Your task to perform on an android device: turn pop-ups on in chrome Image 0: 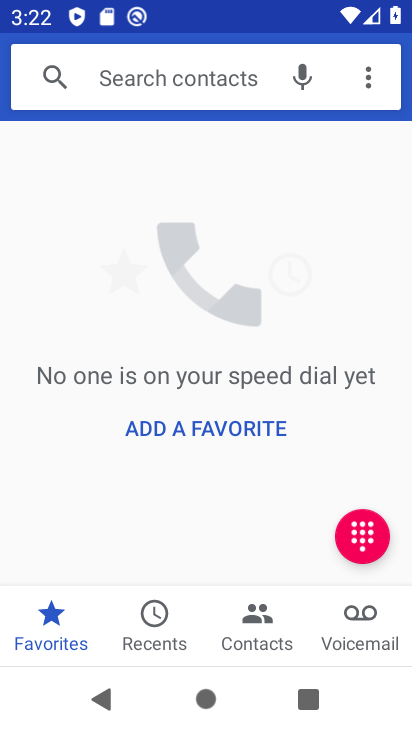
Step 0: press back button
Your task to perform on an android device: turn pop-ups on in chrome Image 1: 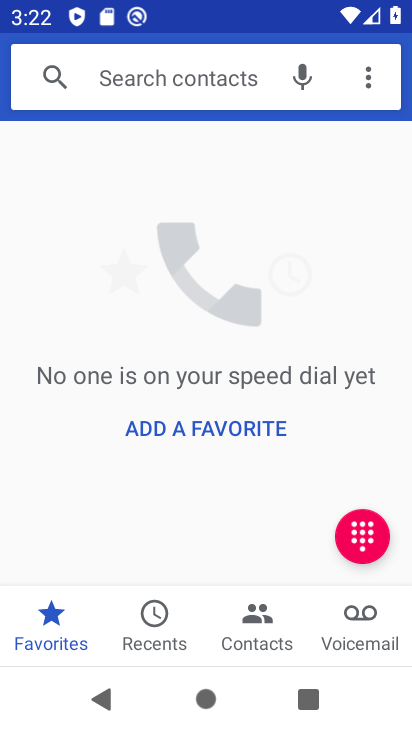
Step 1: press back button
Your task to perform on an android device: turn pop-ups on in chrome Image 2: 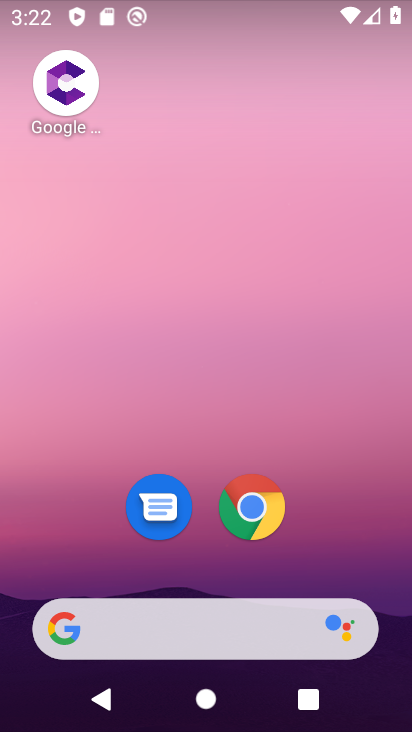
Step 2: drag from (353, 550) to (208, 142)
Your task to perform on an android device: turn pop-ups on in chrome Image 3: 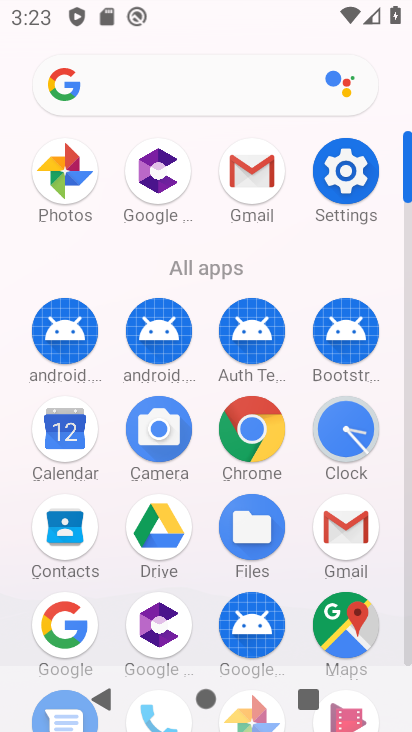
Step 3: click (256, 432)
Your task to perform on an android device: turn pop-ups on in chrome Image 4: 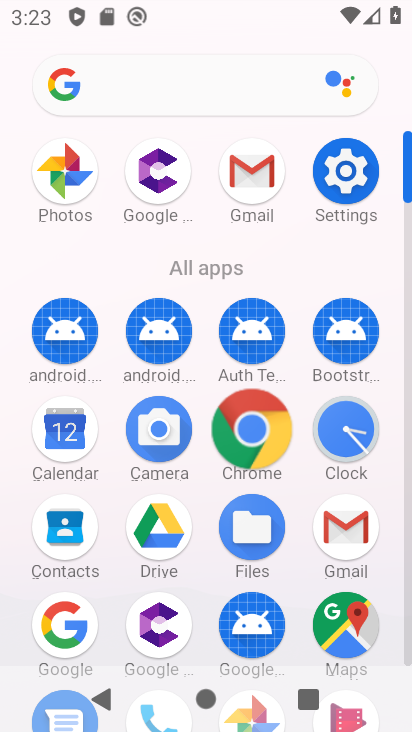
Step 4: click (250, 428)
Your task to perform on an android device: turn pop-ups on in chrome Image 5: 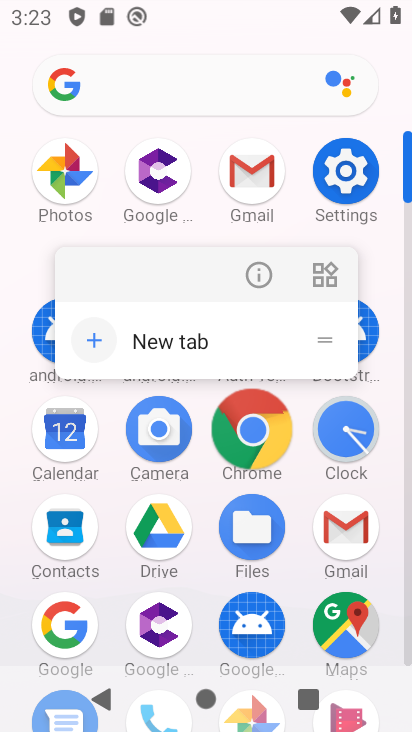
Step 5: click (254, 423)
Your task to perform on an android device: turn pop-ups on in chrome Image 6: 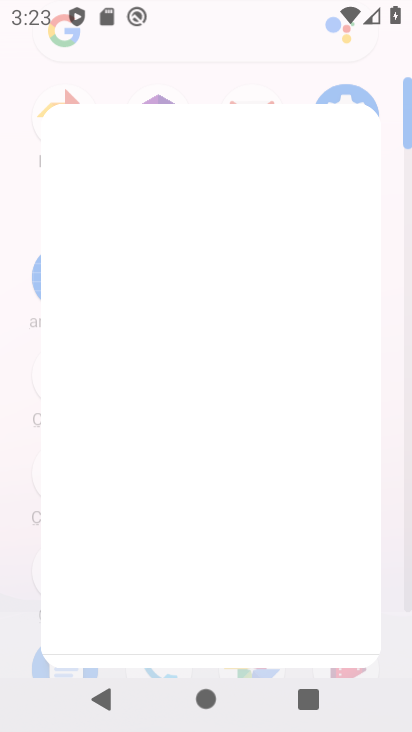
Step 6: click (252, 422)
Your task to perform on an android device: turn pop-ups on in chrome Image 7: 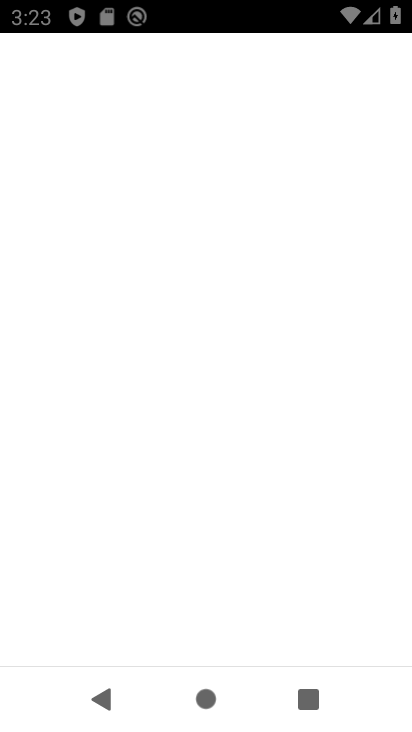
Step 7: click (253, 420)
Your task to perform on an android device: turn pop-ups on in chrome Image 8: 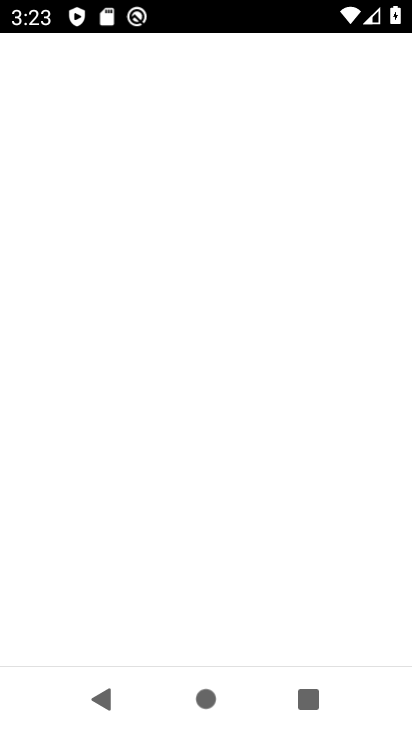
Step 8: click (253, 418)
Your task to perform on an android device: turn pop-ups on in chrome Image 9: 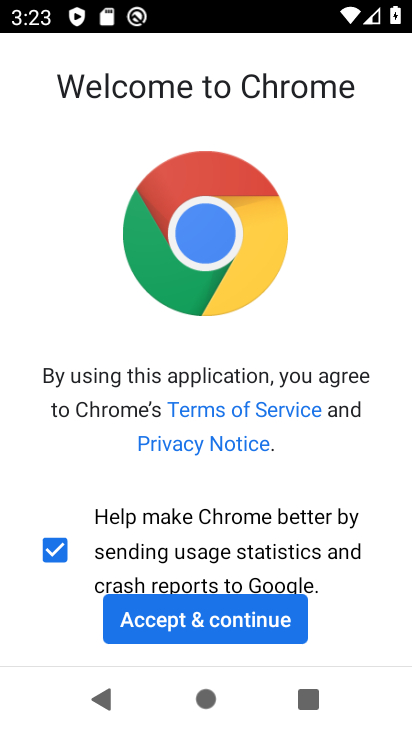
Step 9: click (227, 623)
Your task to perform on an android device: turn pop-ups on in chrome Image 10: 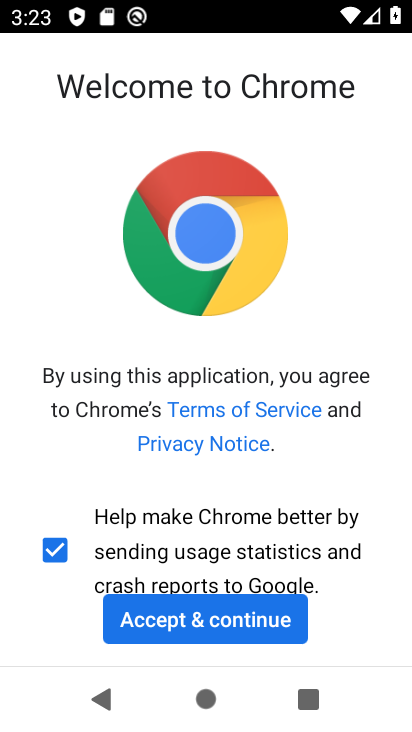
Step 10: click (227, 621)
Your task to perform on an android device: turn pop-ups on in chrome Image 11: 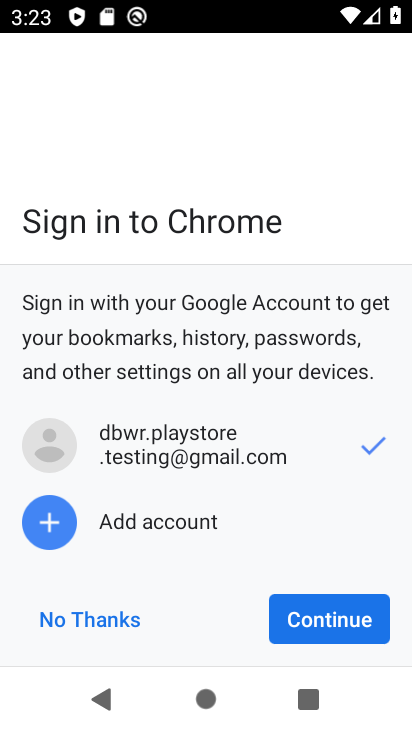
Step 11: click (227, 620)
Your task to perform on an android device: turn pop-ups on in chrome Image 12: 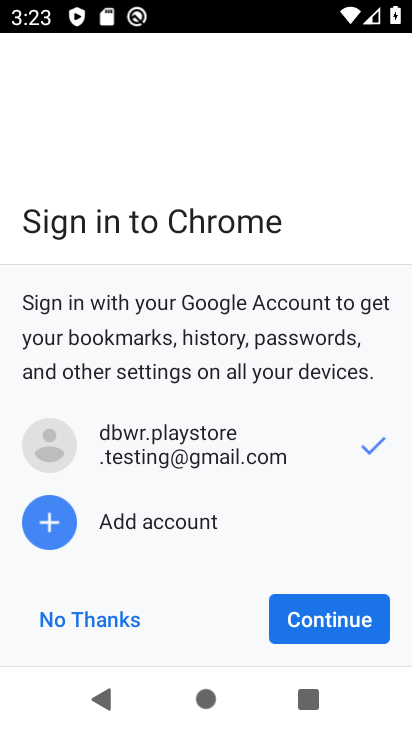
Step 12: click (349, 620)
Your task to perform on an android device: turn pop-ups on in chrome Image 13: 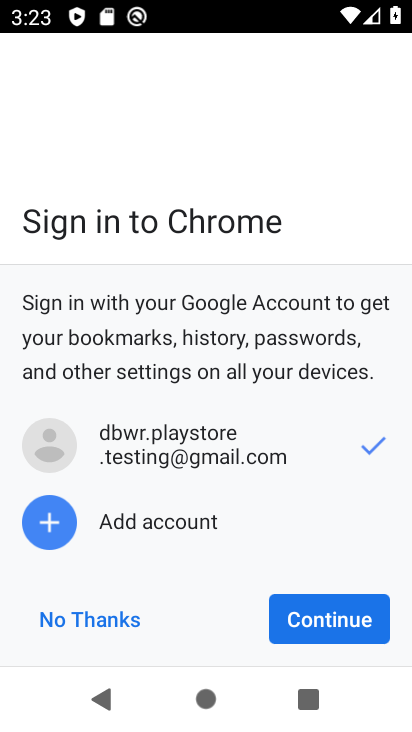
Step 13: click (351, 618)
Your task to perform on an android device: turn pop-ups on in chrome Image 14: 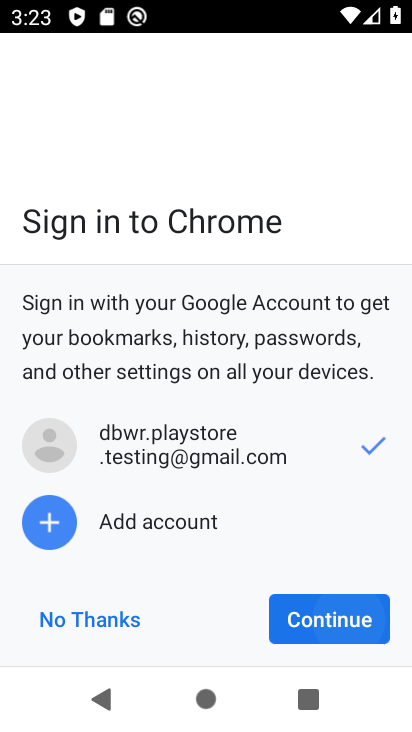
Step 14: click (351, 618)
Your task to perform on an android device: turn pop-ups on in chrome Image 15: 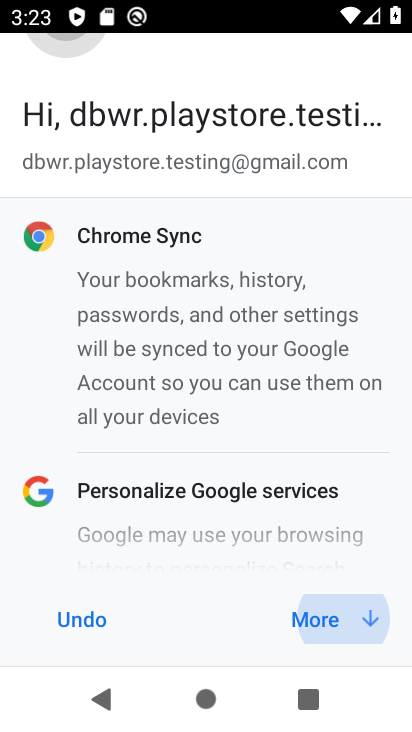
Step 15: click (348, 616)
Your task to perform on an android device: turn pop-ups on in chrome Image 16: 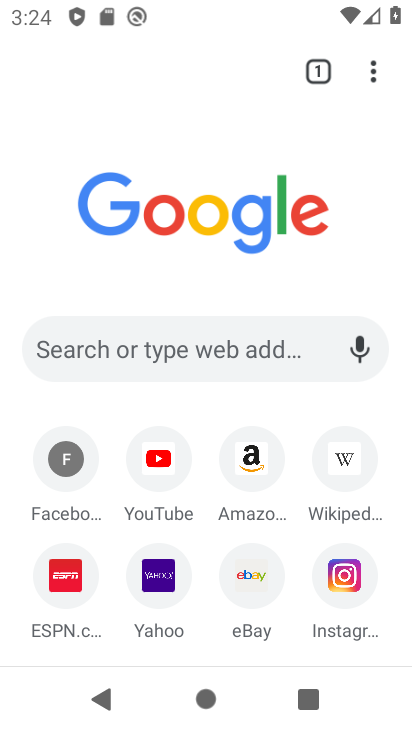
Step 16: drag from (372, 73) to (132, 504)
Your task to perform on an android device: turn pop-ups on in chrome Image 17: 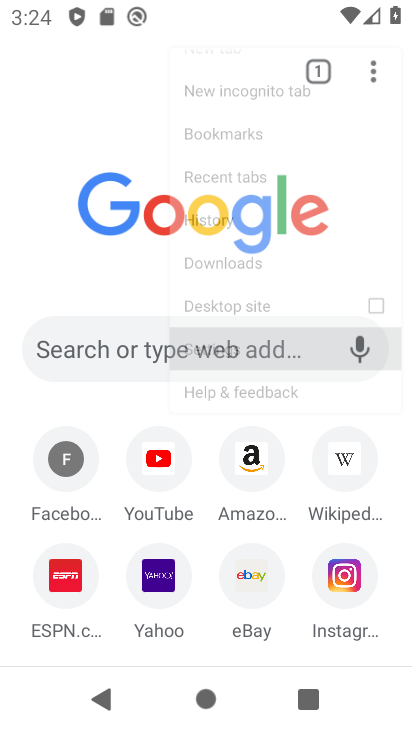
Step 17: click (134, 501)
Your task to perform on an android device: turn pop-ups on in chrome Image 18: 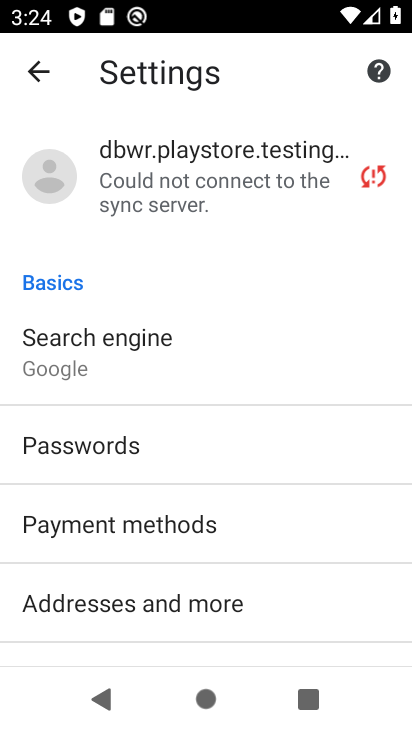
Step 18: drag from (150, 470) to (109, 221)
Your task to perform on an android device: turn pop-ups on in chrome Image 19: 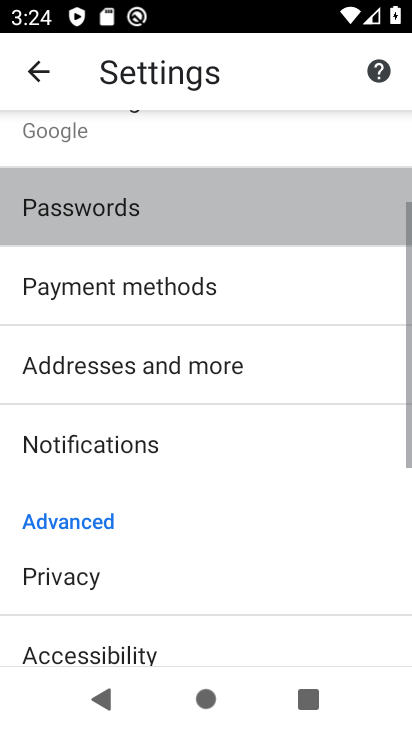
Step 19: drag from (148, 430) to (173, 117)
Your task to perform on an android device: turn pop-ups on in chrome Image 20: 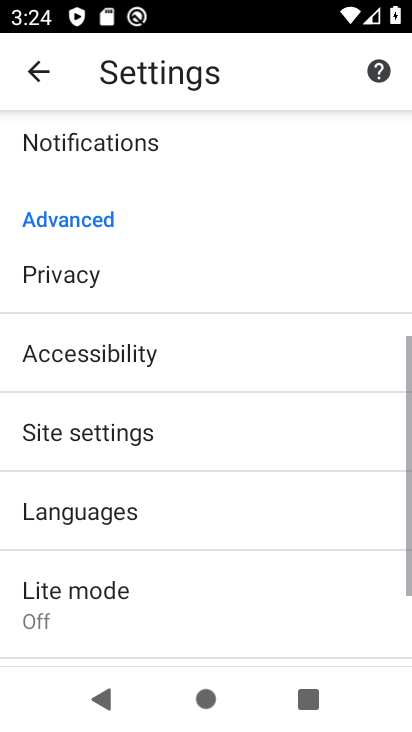
Step 20: drag from (185, 407) to (187, 132)
Your task to perform on an android device: turn pop-ups on in chrome Image 21: 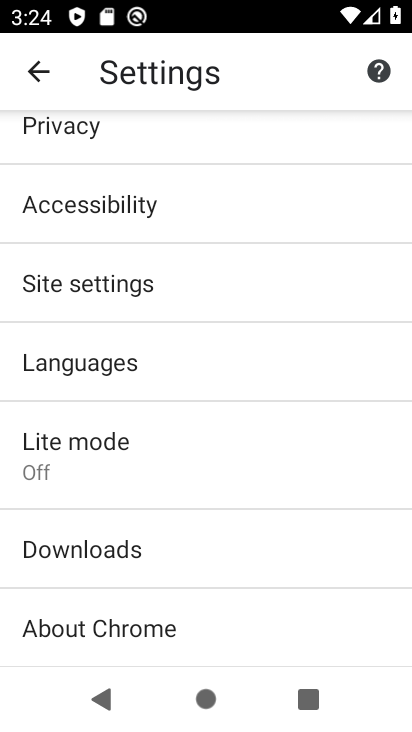
Step 21: click (74, 288)
Your task to perform on an android device: turn pop-ups on in chrome Image 22: 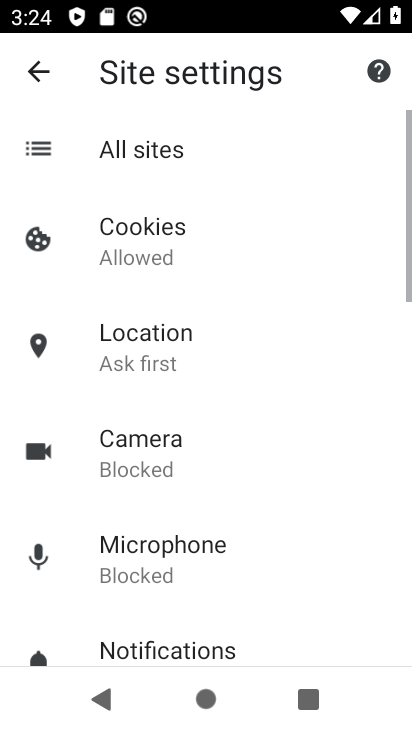
Step 22: drag from (244, 423) to (213, 121)
Your task to perform on an android device: turn pop-ups on in chrome Image 23: 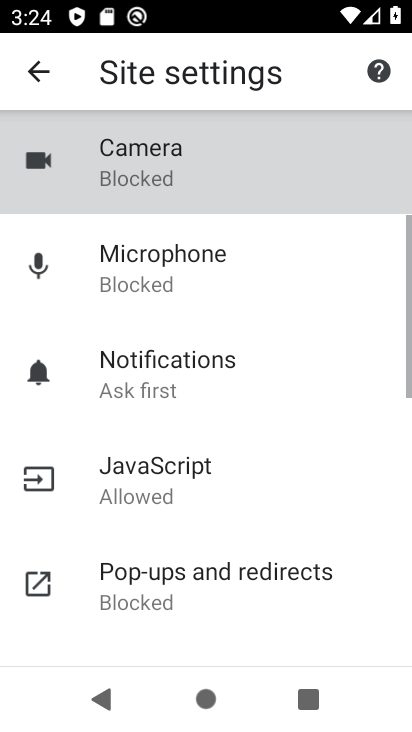
Step 23: drag from (245, 369) to (253, 112)
Your task to perform on an android device: turn pop-ups on in chrome Image 24: 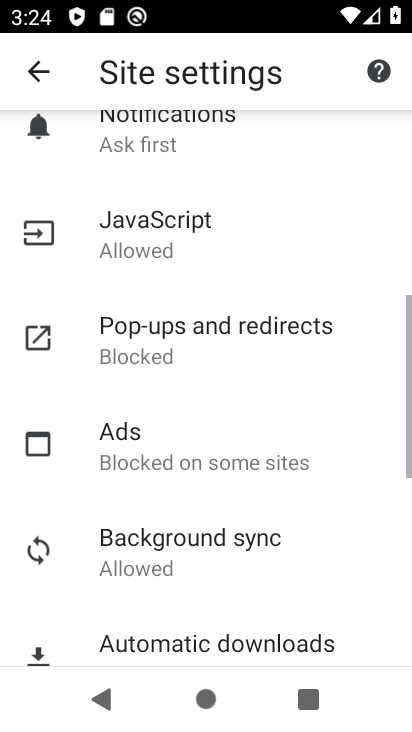
Step 24: drag from (228, 309) to (230, 161)
Your task to perform on an android device: turn pop-ups on in chrome Image 25: 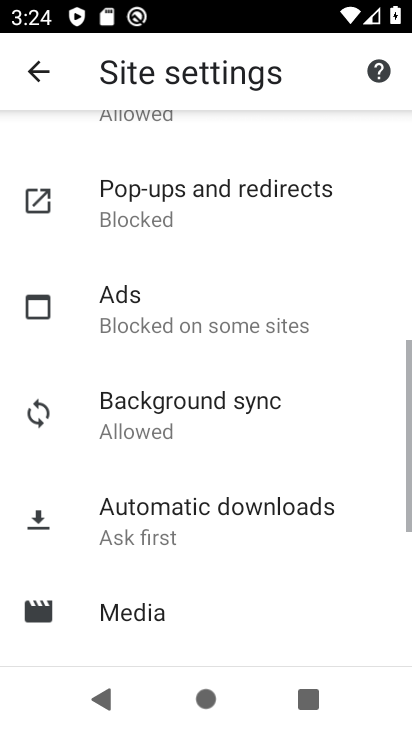
Step 25: drag from (239, 455) to (262, 170)
Your task to perform on an android device: turn pop-ups on in chrome Image 26: 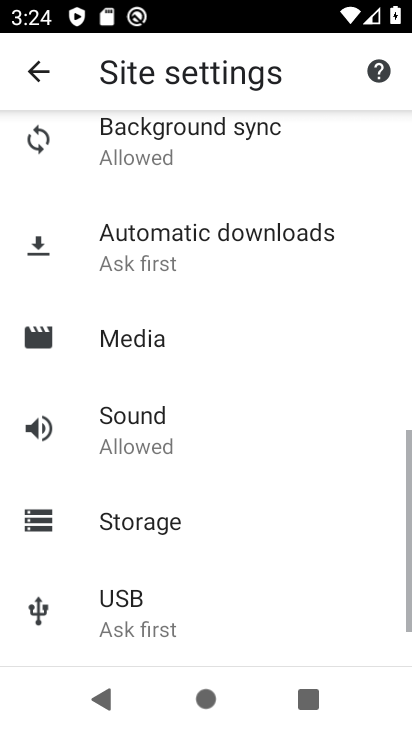
Step 26: drag from (254, 439) to (216, 182)
Your task to perform on an android device: turn pop-ups on in chrome Image 27: 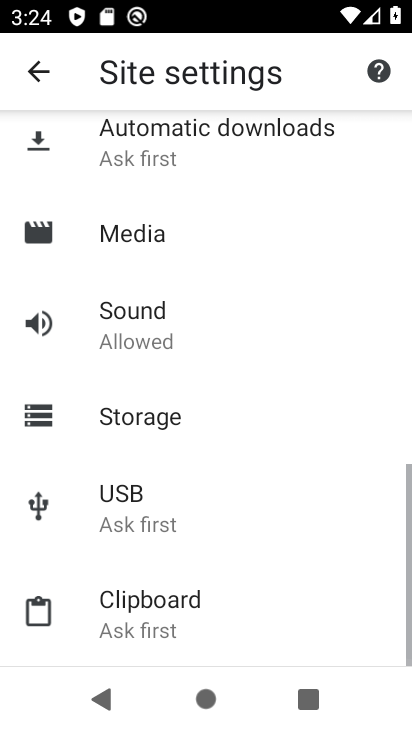
Step 27: drag from (189, 470) to (153, 117)
Your task to perform on an android device: turn pop-ups on in chrome Image 28: 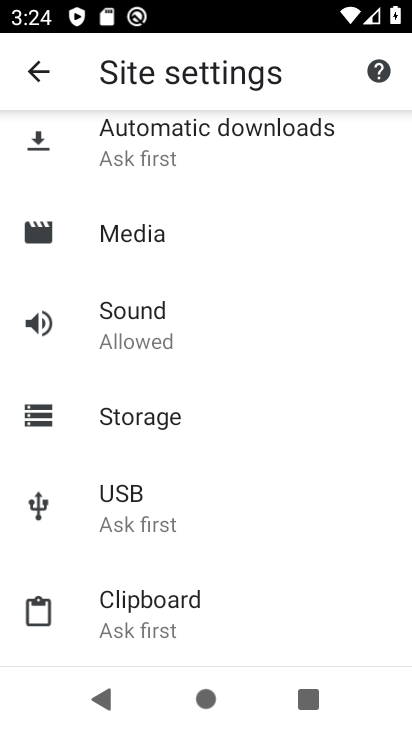
Step 28: drag from (133, 281) to (209, 522)
Your task to perform on an android device: turn pop-ups on in chrome Image 29: 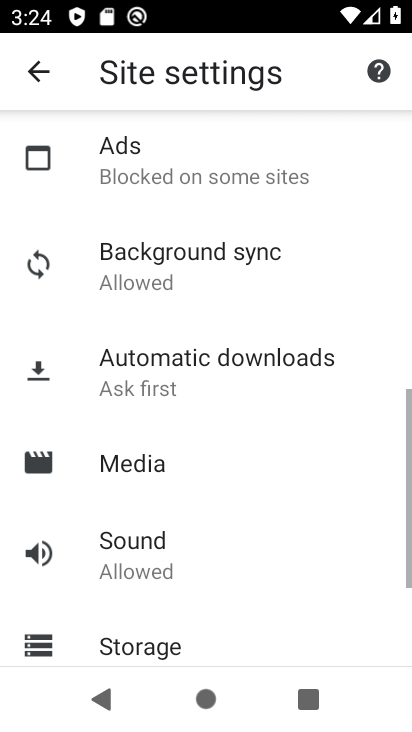
Step 29: drag from (214, 355) to (264, 568)
Your task to perform on an android device: turn pop-ups on in chrome Image 30: 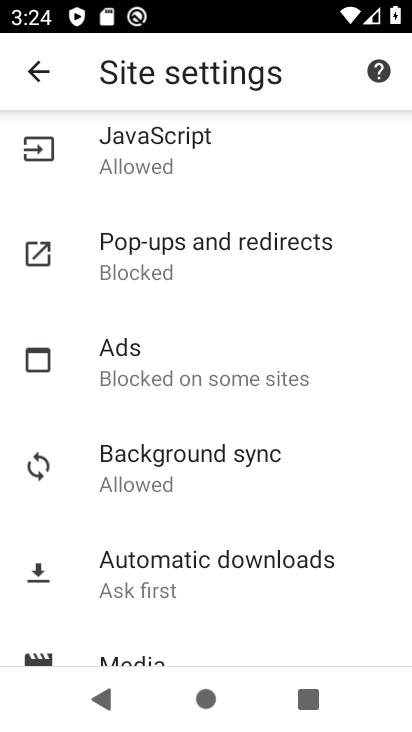
Step 30: click (141, 275)
Your task to perform on an android device: turn pop-ups on in chrome Image 31: 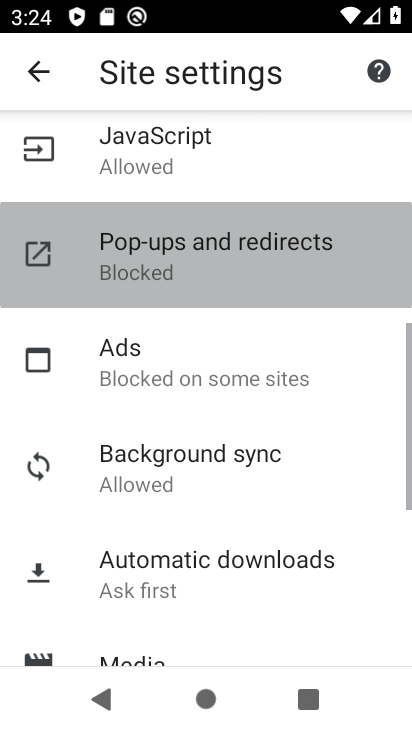
Step 31: click (142, 266)
Your task to perform on an android device: turn pop-ups on in chrome Image 32: 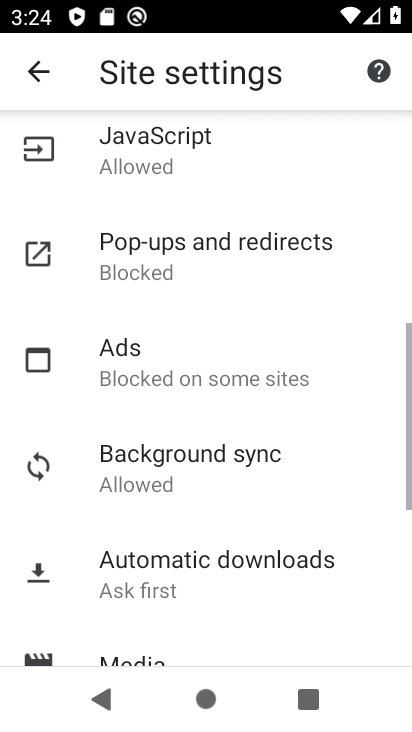
Step 32: click (143, 266)
Your task to perform on an android device: turn pop-ups on in chrome Image 33: 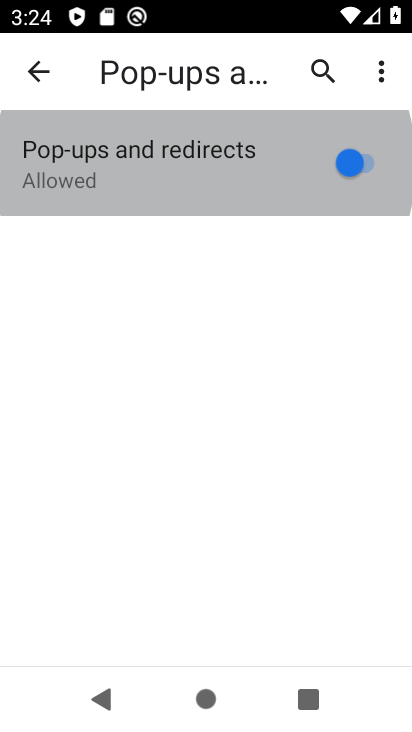
Step 33: click (144, 266)
Your task to perform on an android device: turn pop-ups on in chrome Image 34: 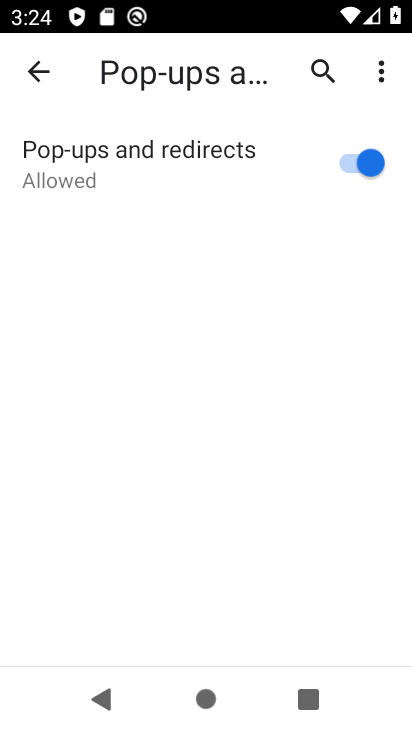
Step 34: task complete